Your task to perform on an android device: Open ESPN.com Image 0: 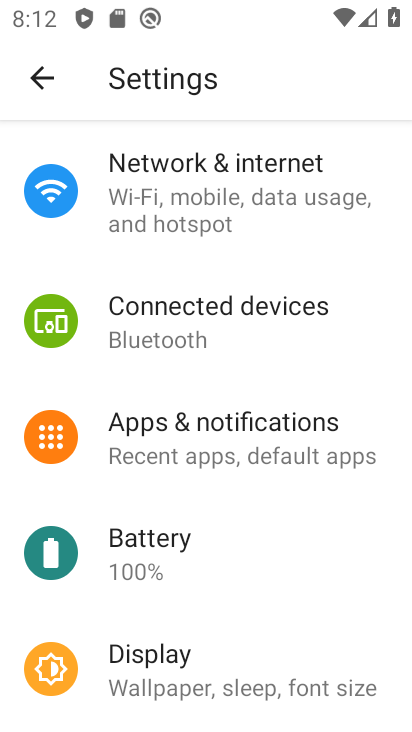
Step 0: press home button
Your task to perform on an android device: Open ESPN.com Image 1: 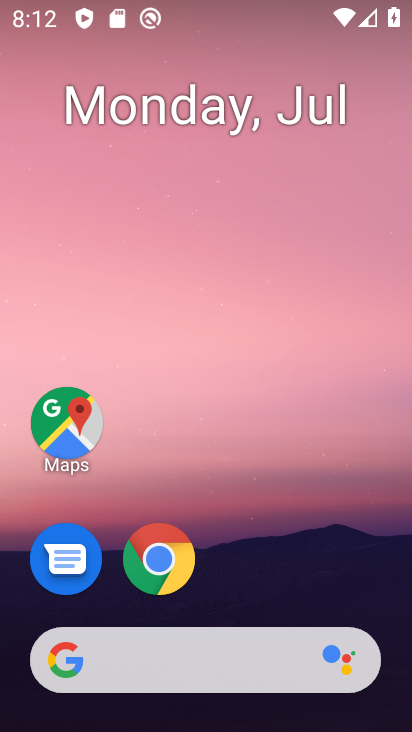
Step 1: click (175, 580)
Your task to perform on an android device: Open ESPN.com Image 2: 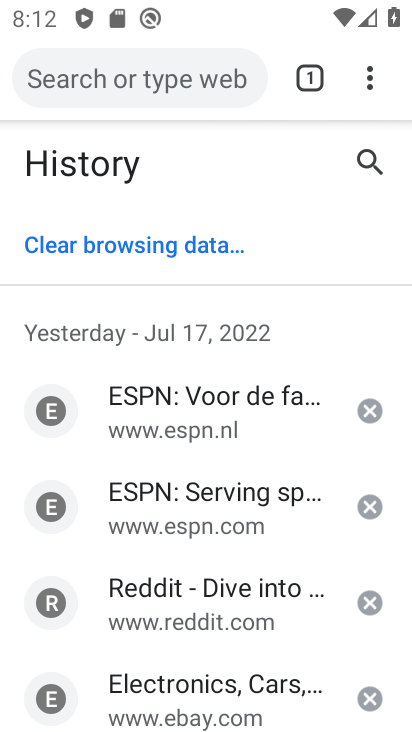
Step 2: click (293, 74)
Your task to perform on an android device: Open ESPN.com Image 3: 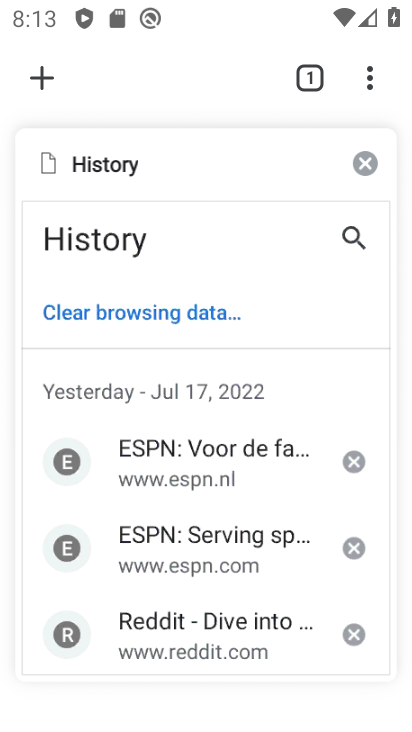
Step 3: click (51, 82)
Your task to perform on an android device: Open ESPN.com Image 4: 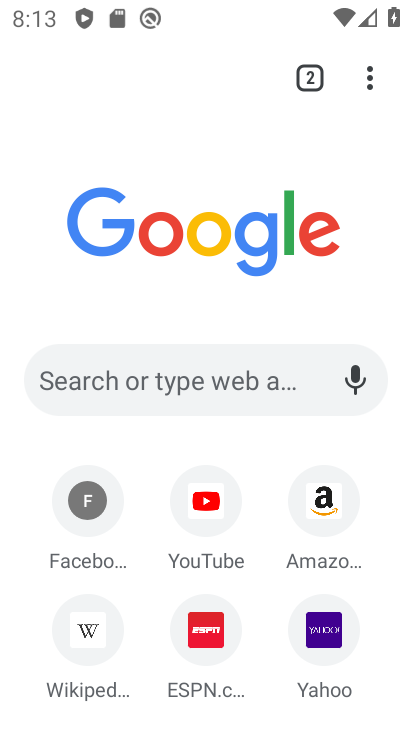
Step 4: click (183, 680)
Your task to perform on an android device: Open ESPN.com Image 5: 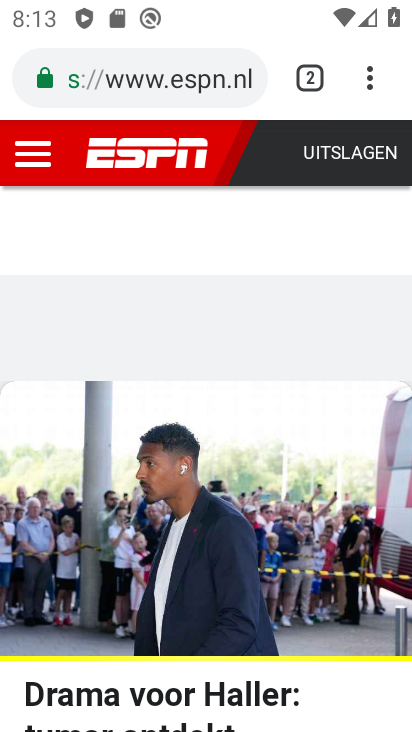
Step 5: task complete